Your task to perform on an android device: Go to Android settings Image 0: 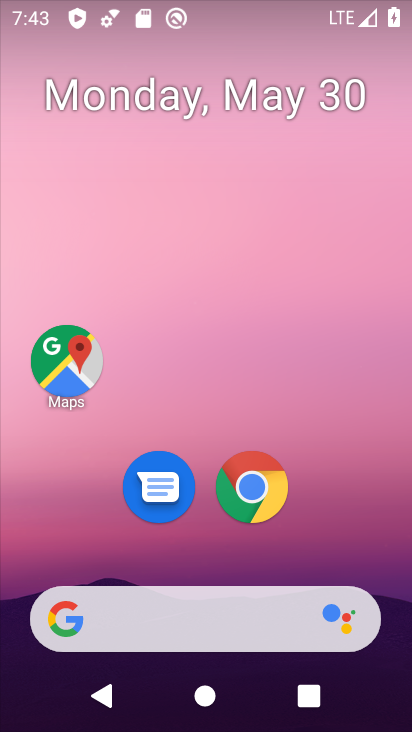
Step 0: click (78, 362)
Your task to perform on an android device: Go to Android settings Image 1: 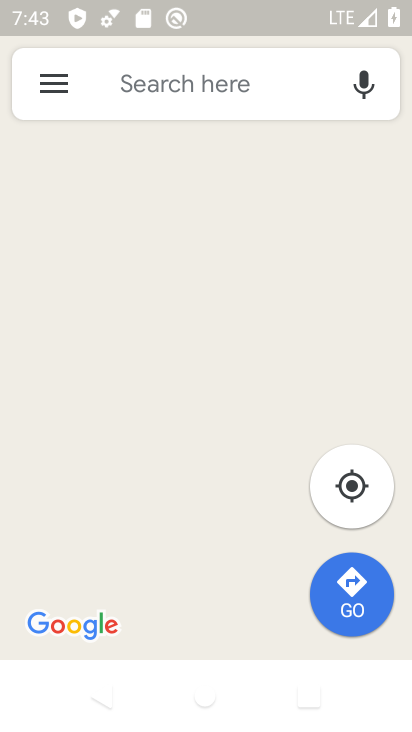
Step 1: press back button
Your task to perform on an android device: Go to Android settings Image 2: 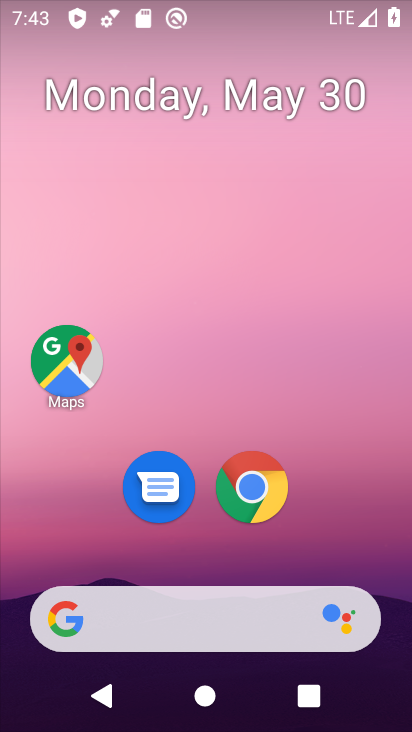
Step 2: drag from (398, 686) to (358, 66)
Your task to perform on an android device: Go to Android settings Image 3: 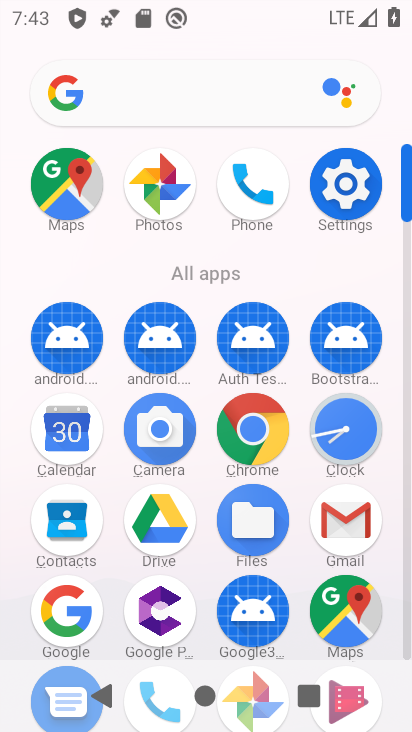
Step 3: click (352, 177)
Your task to perform on an android device: Go to Android settings Image 4: 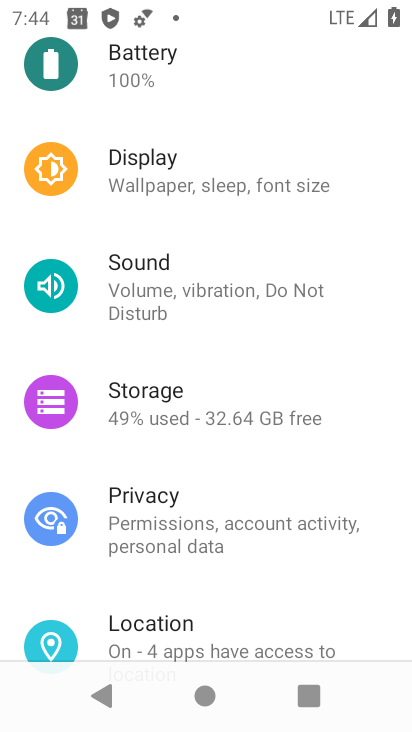
Step 4: task complete